Your task to perform on an android device: Go to ESPN.com Image 0: 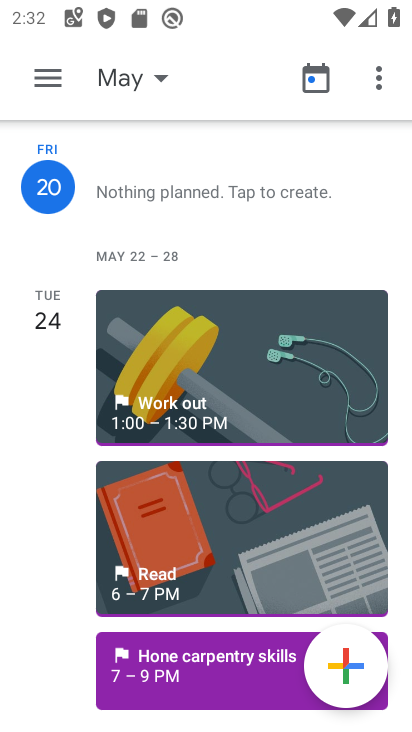
Step 0: press home button
Your task to perform on an android device: Go to ESPN.com Image 1: 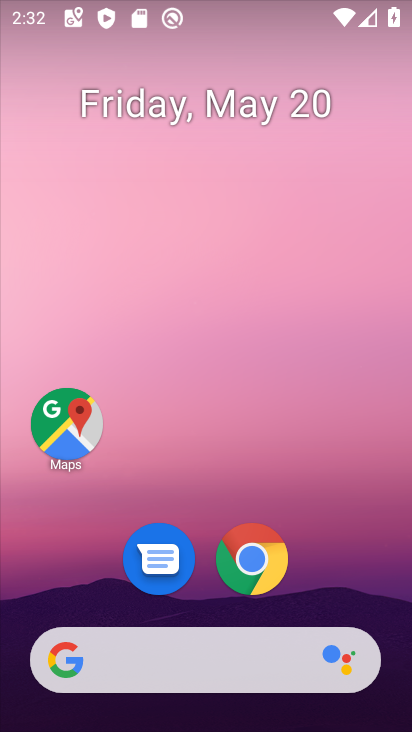
Step 1: click (178, 678)
Your task to perform on an android device: Go to ESPN.com Image 2: 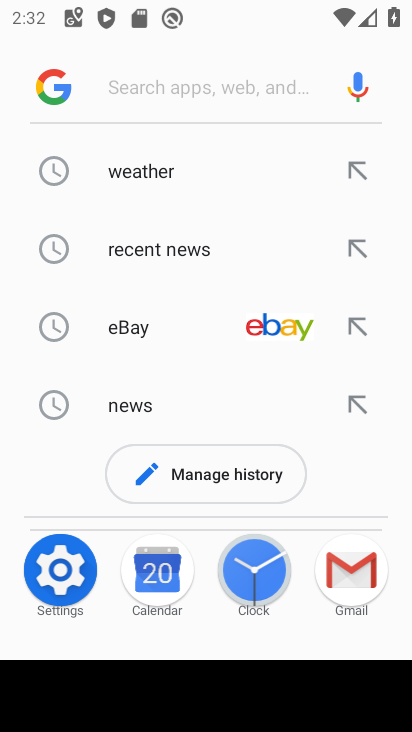
Step 2: type "espn.com"
Your task to perform on an android device: Go to ESPN.com Image 3: 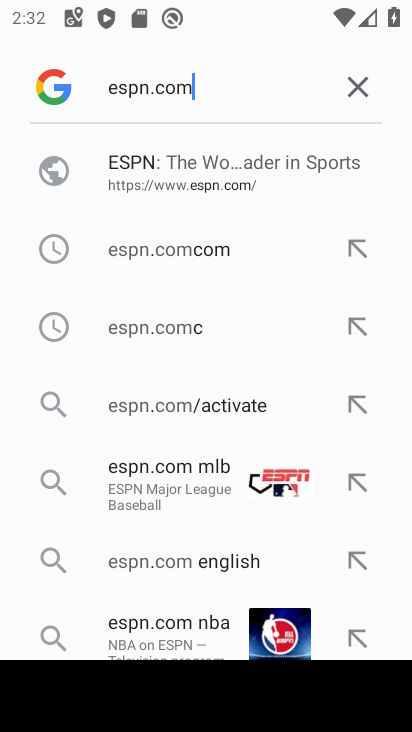
Step 3: click (146, 166)
Your task to perform on an android device: Go to ESPN.com Image 4: 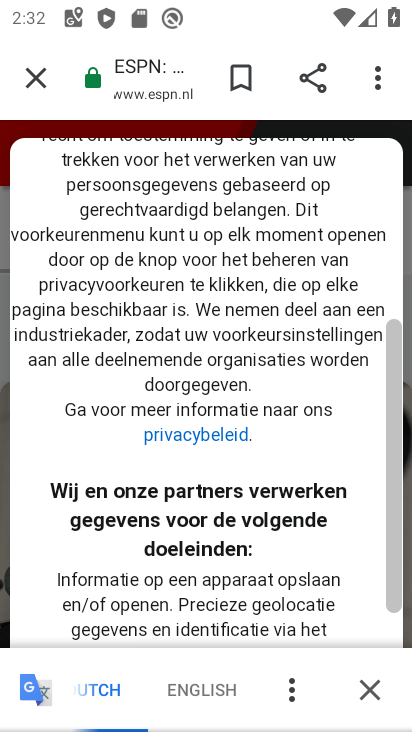
Step 4: task complete